Your task to perform on an android device: toggle translation in the chrome app Image 0: 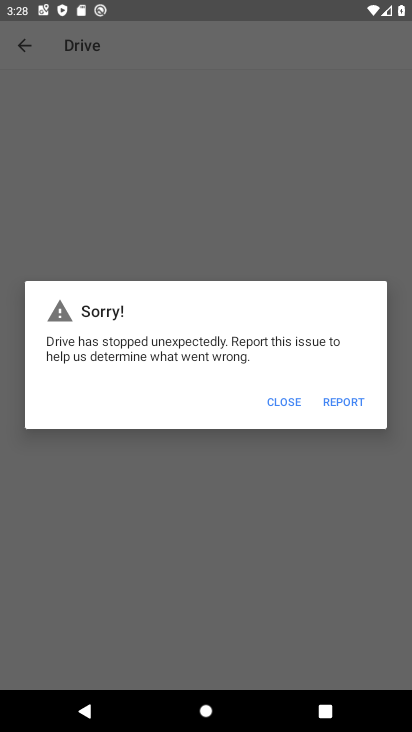
Step 0: press home button
Your task to perform on an android device: toggle translation in the chrome app Image 1: 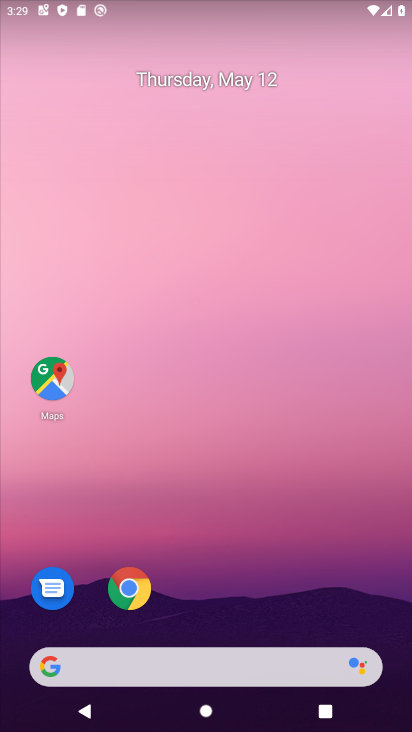
Step 1: click (115, 576)
Your task to perform on an android device: toggle translation in the chrome app Image 2: 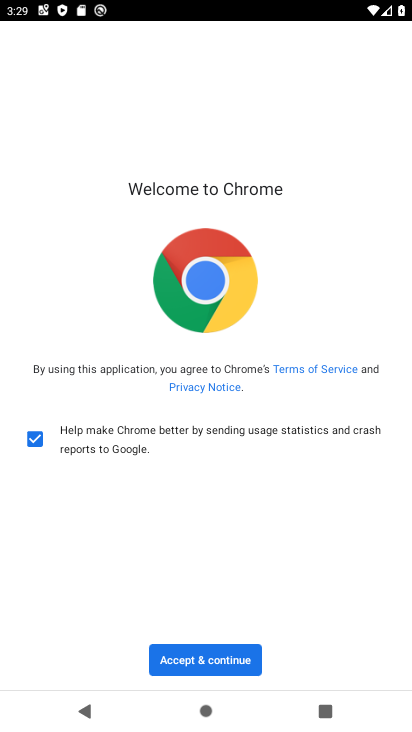
Step 2: click (197, 656)
Your task to perform on an android device: toggle translation in the chrome app Image 3: 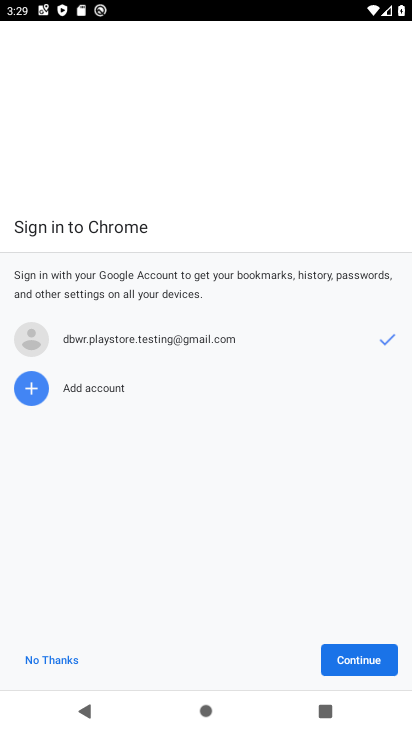
Step 3: click (332, 665)
Your task to perform on an android device: toggle translation in the chrome app Image 4: 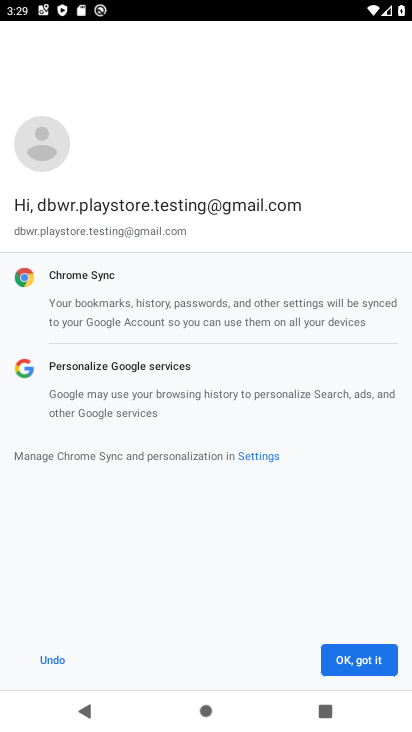
Step 4: click (356, 658)
Your task to perform on an android device: toggle translation in the chrome app Image 5: 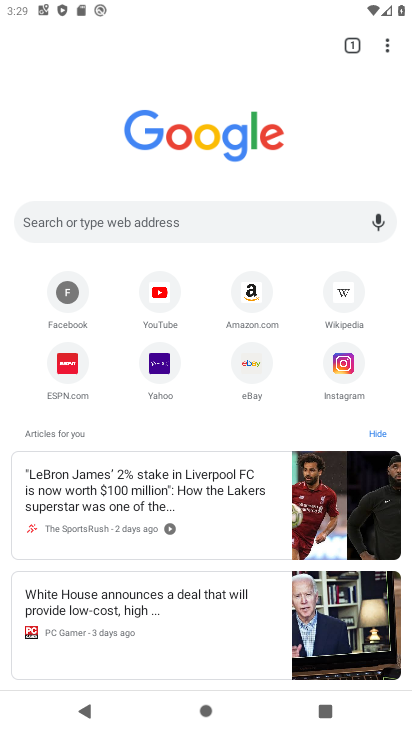
Step 5: click (387, 43)
Your task to perform on an android device: toggle translation in the chrome app Image 6: 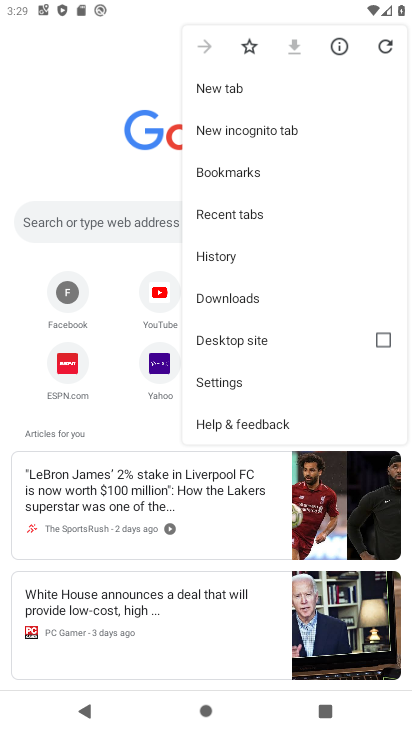
Step 6: click (258, 382)
Your task to perform on an android device: toggle translation in the chrome app Image 7: 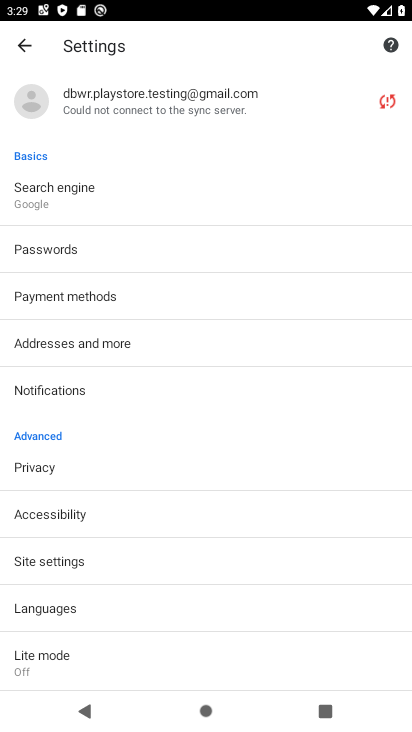
Step 7: click (175, 598)
Your task to perform on an android device: toggle translation in the chrome app Image 8: 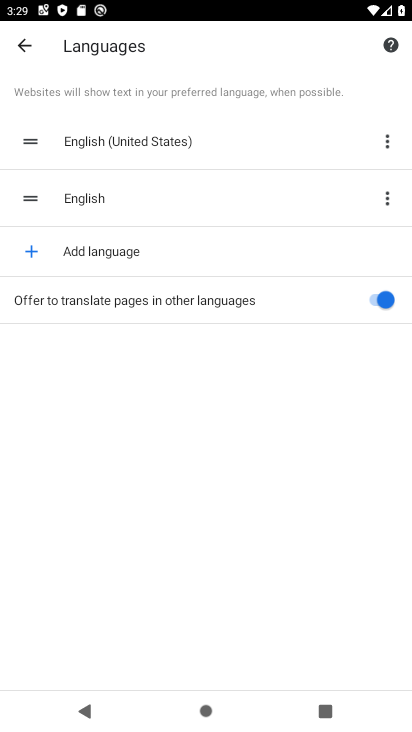
Step 8: click (216, 296)
Your task to perform on an android device: toggle translation in the chrome app Image 9: 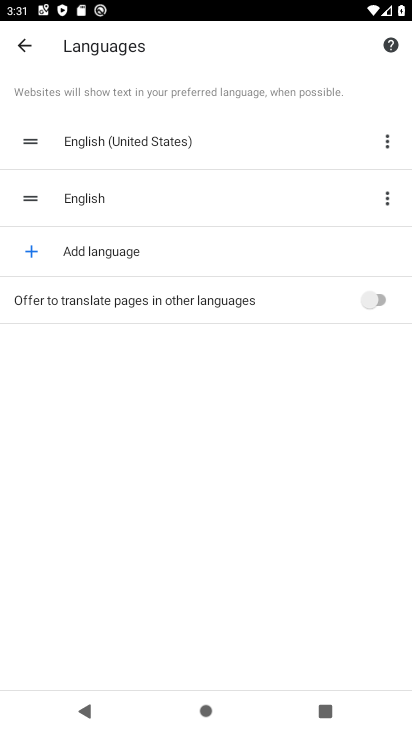
Step 9: task complete